Your task to perform on an android device: find photos in the google photos app Image 0: 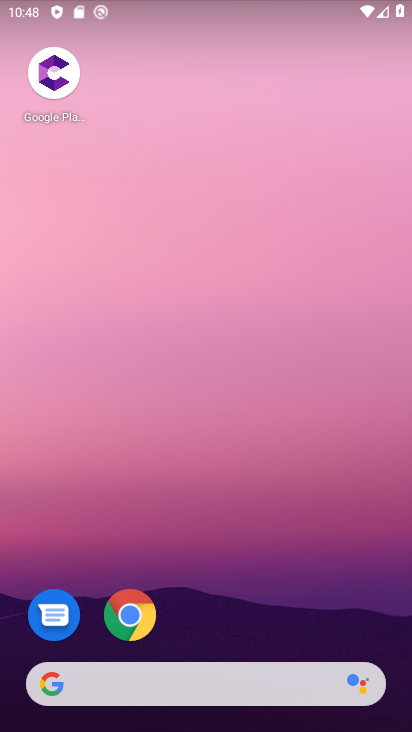
Step 0: drag from (234, 646) to (223, 103)
Your task to perform on an android device: find photos in the google photos app Image 1: 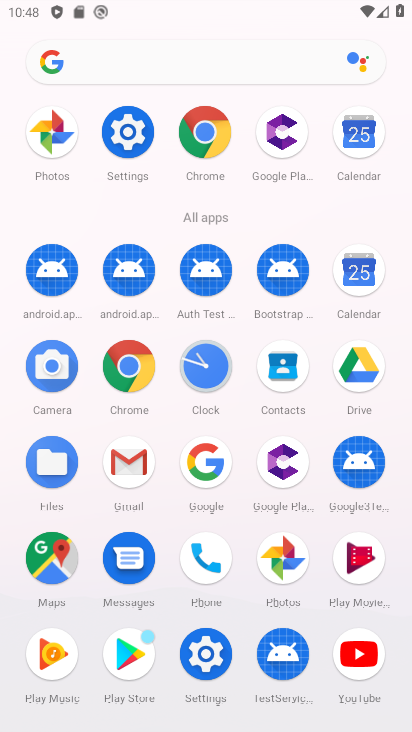
Step 1: click (54, 132)
Your task to perform on an android device: find photos in the google photos app Image 2: 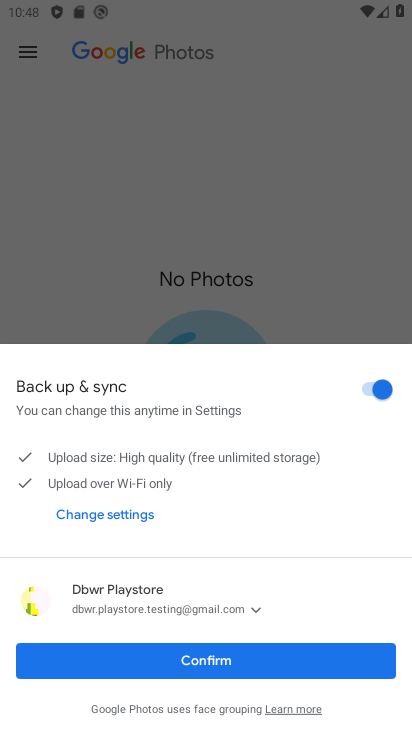
Step 2: click (188, 651)
Your task to perform on an android device: find photos in the google photos app Image 3: 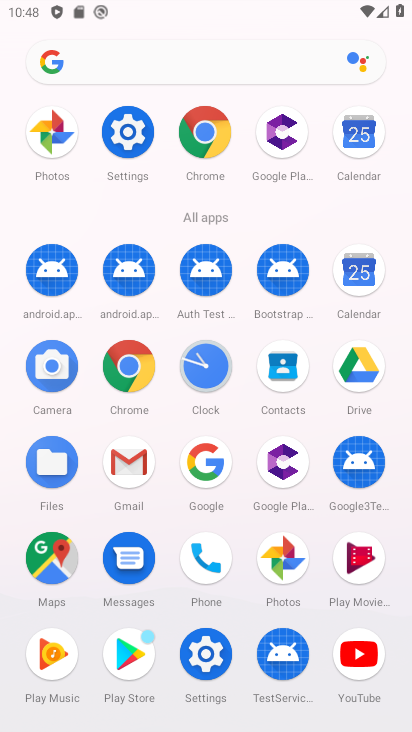
Step 3: click (53, 154)
Your task to perform on an android device: find photos in the google photos app Image 4: 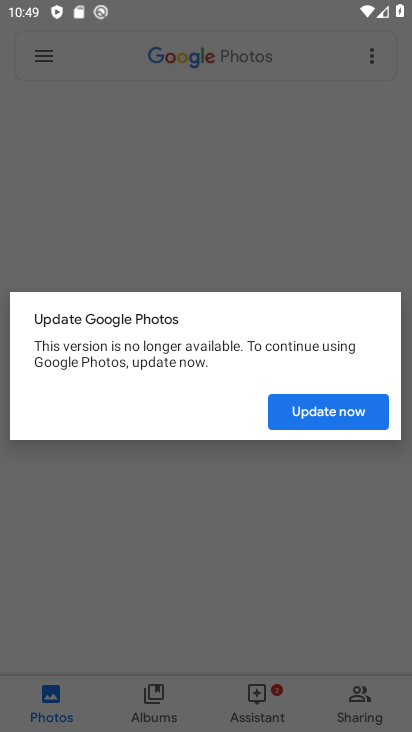
Step 4: click (336, 418)
Your task to perform on an android device: find photos in the google photos app Image 5: 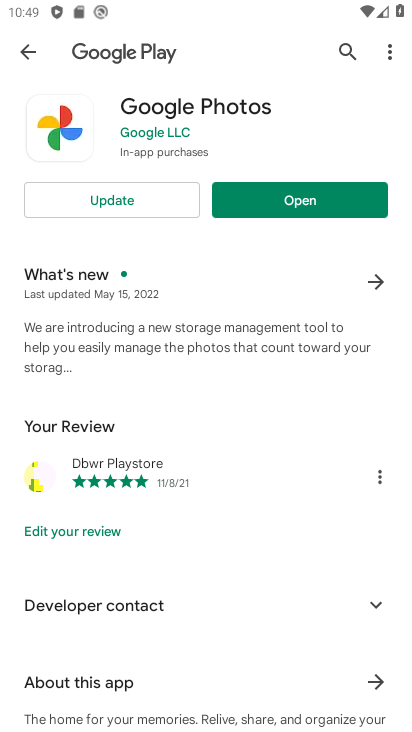
Step 5: click (162, 201)
Your task to perform on an android device: find photos in the google photos app Image 6: 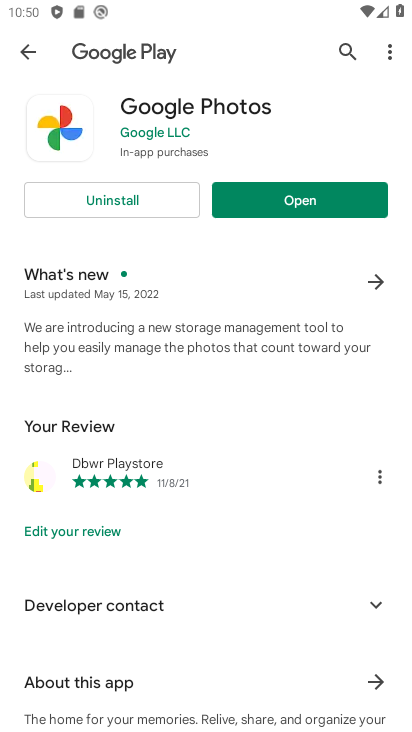
Step 6: click (358, 187)
Your task to perform on an android device: find photos in the google photos app Image 7: 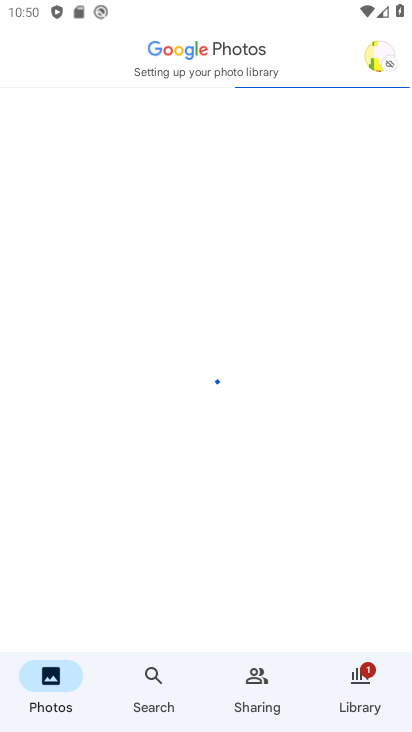
Step 7: task complete